Your task to perform on an android device: remove spam from my inbox in the gmail app Image 0: 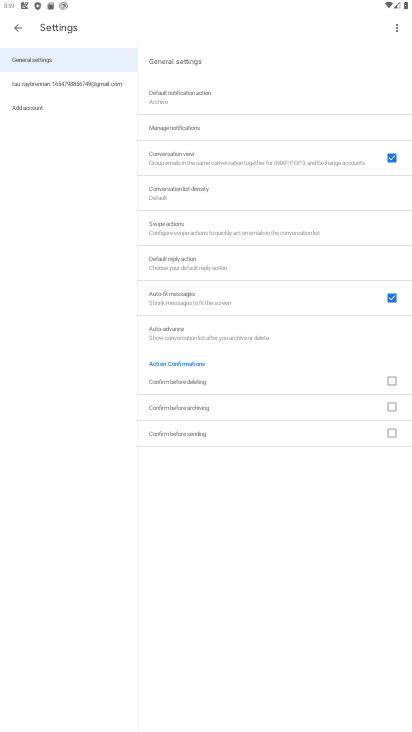
Step 0: press home button
Your task to perform on an android device: remove spam from my inbox in the gmail app Image 1: 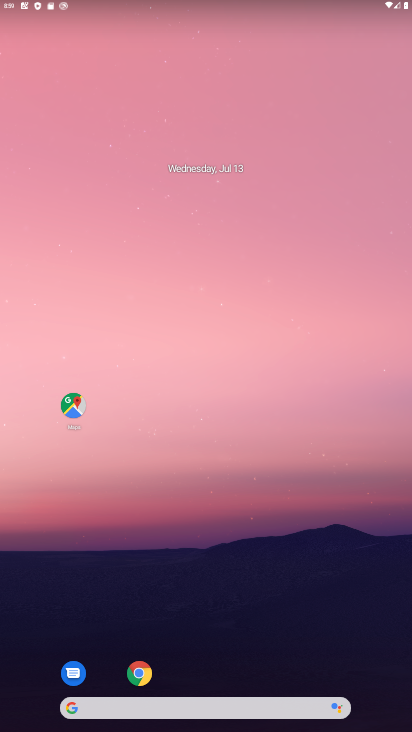
Step 1: drag from (284, 249) to (242, 2)
Your task to perform on an android device: remove spam from my inbox in the gmail app Image 2: 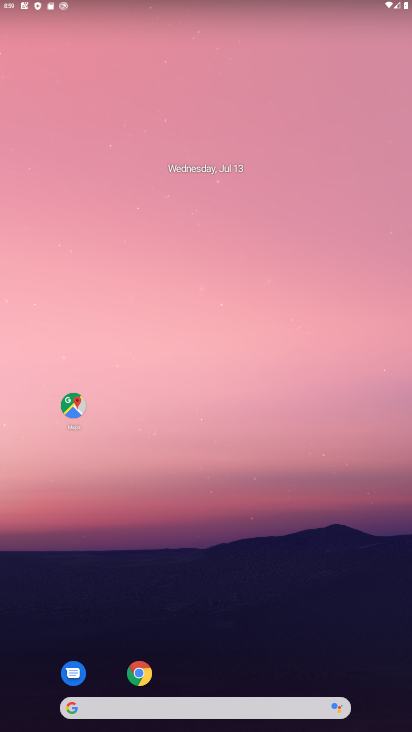
Step 2: drag from (216, 686) to (216, 17)
Your task to perform on an android device: remove spam from my inbox in the gmail app Image 3: 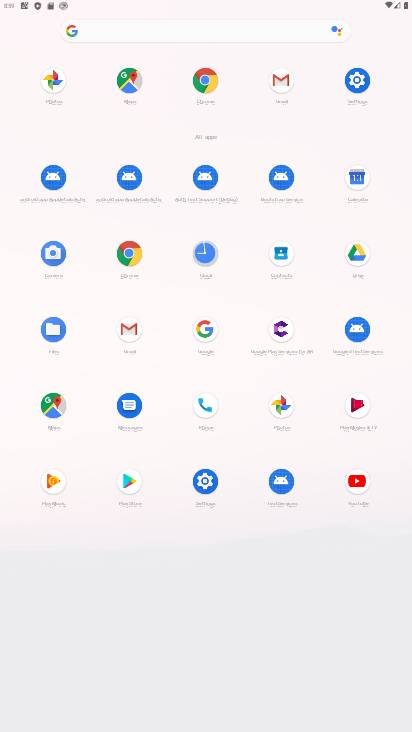
Step 3: click (282, 78)
Your task to perform on an android device: remove spam from my inbox in the gmail app Image 4: 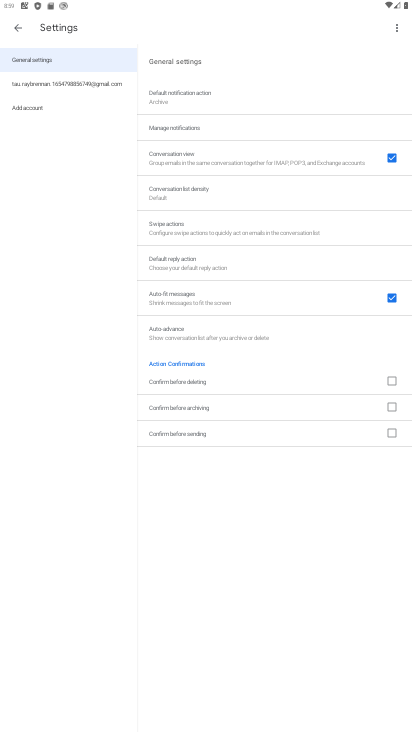
Step 4: click (23, 33)
Your task to perform on an android device: remove spam from my inbox in the gmail app Image 5: 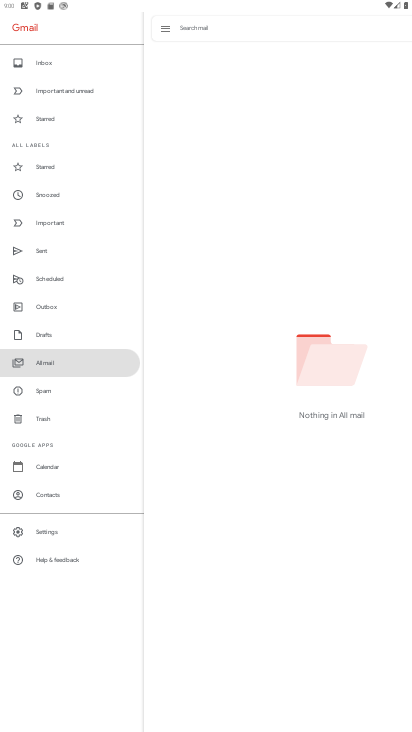
Step 5: click (50, 388)
Your task to perform on an android device: remove spam from my inbox in the gmail app Image 6: 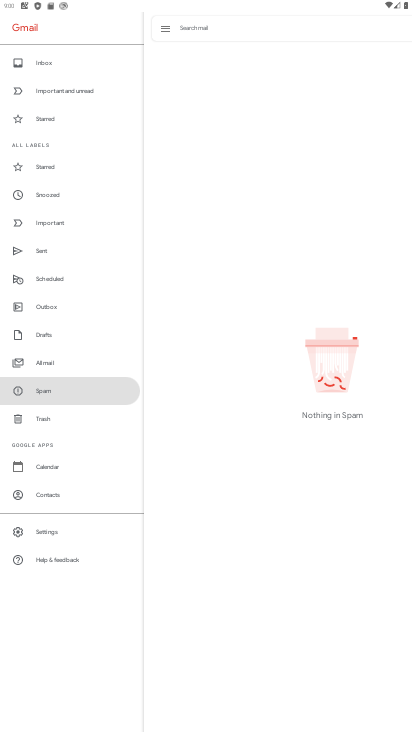
Step 6: task complete